Your task to perform on an android device: Check the weather Image 0: 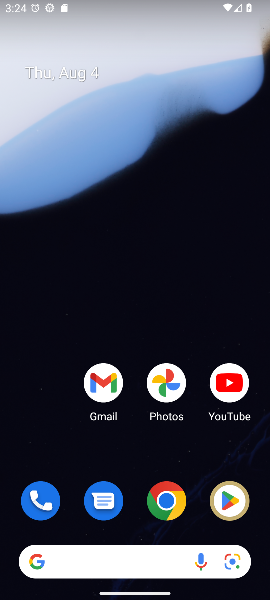
Step 0: click (176, 500)
Your task to perform on an android device: Check the weather Image 1: 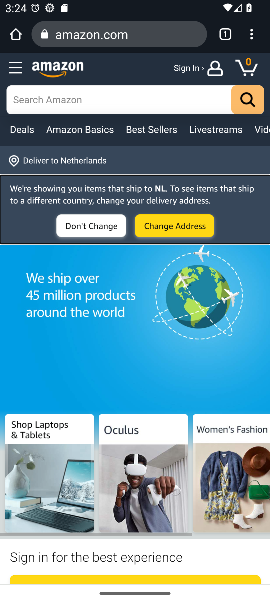
Step 1: click (139, 48)
Your task to perform on an android device: Check the weather Image 2: 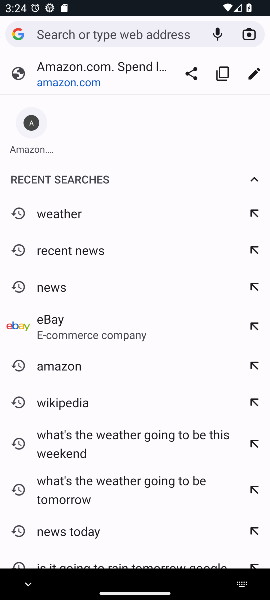
Step 2: type "Check the weather"
Your task to perform on an android device: Check the weather Image 3: 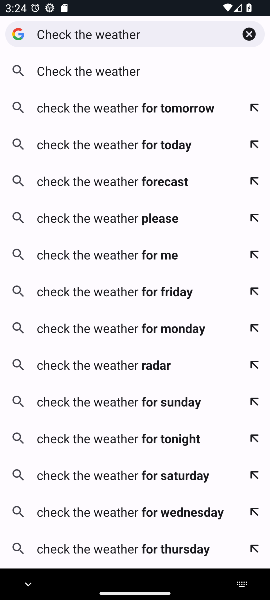
Step 3: click (67, 81)
Your task to perform on an android device: Check the weather Image 4: 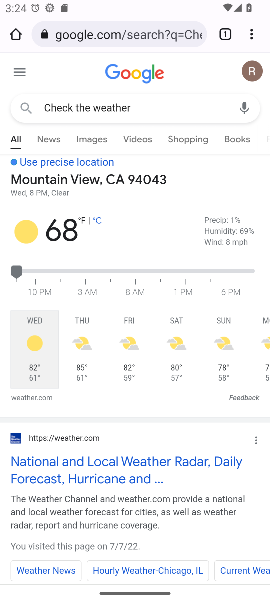
Step 4: task complete